Your task to perform on an android device: Open calendar and show me the fourth week of next month Image 0: 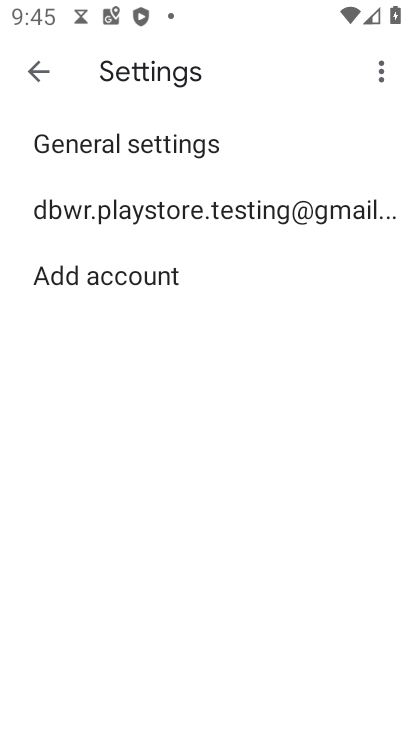
Step 0: press home button
Your task to perform on an android device: Open calendar and show me the fourth week of next month Image 1: 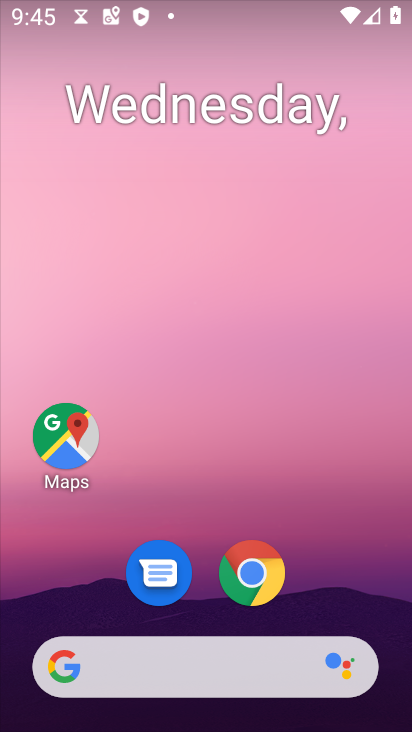
Step 1: drag from (234, 490) to (252, 290)
Your task to perform on an android device: Open calendar and show me the fourth week of next month Image 2: 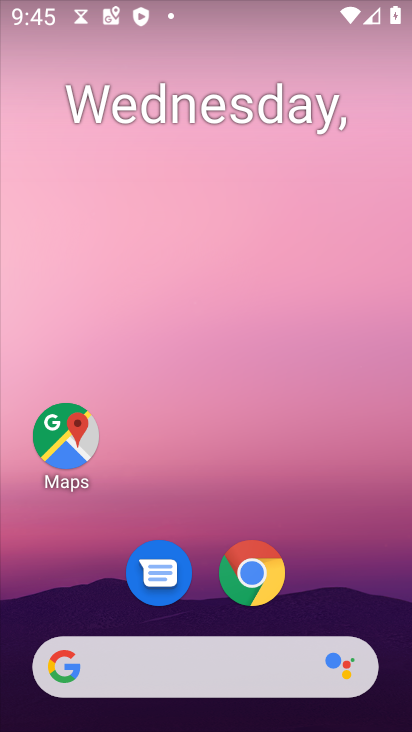
Step 2: drag from (344, 558) to (348, 365)
Your task to perform on an android device: Open calendar and show me the fourth week of next month Image 3: 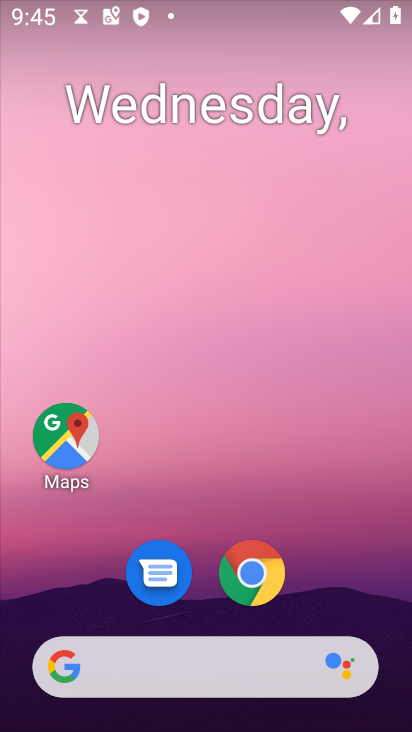
Step 3: drag from (338, 577) to (329, 216)
Your task to perform on an android device: Open calendar and show me the fourth week of next month Image 4: 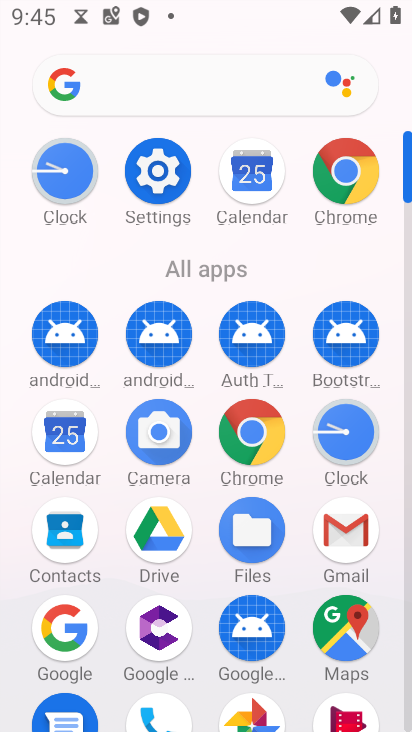
Step 4: click (63, 432)
Your task to perform on an android device: Open calendar and show me the fourth week of next month Image 5: 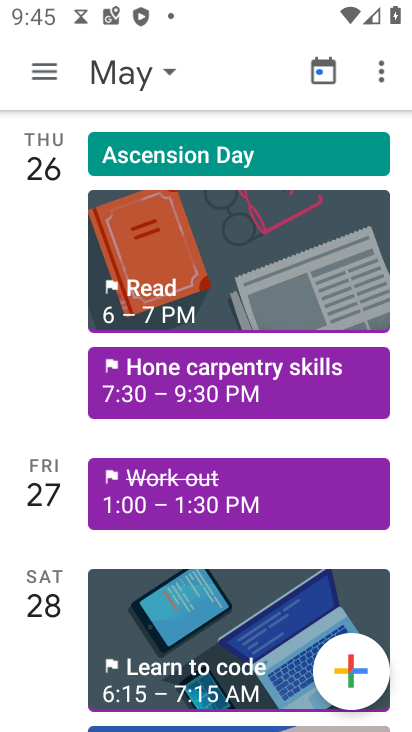
Step 5: click (49, 65)
Your task to perform on an android device: Open calendar and show me the fourth week of next month Image 6: 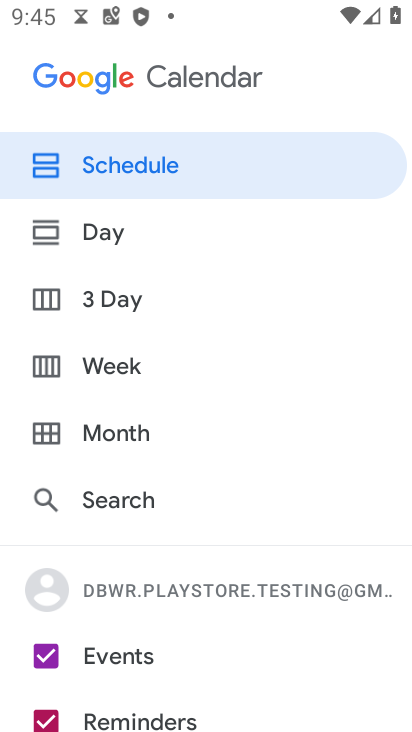
Step 6: click (140, 429)
Your task to perform on an android device: Open calendar and show me the fourth week of next month Image 7: 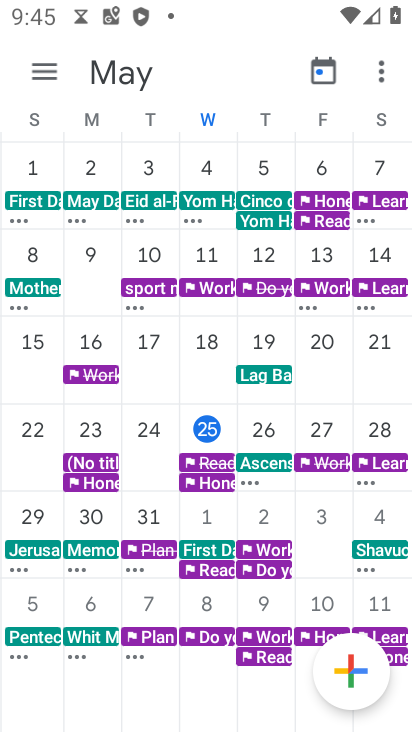
Step 7: task complete